Your task to perform on an android device: Open the Play Movies app and select the watchlist tab. Image 0: 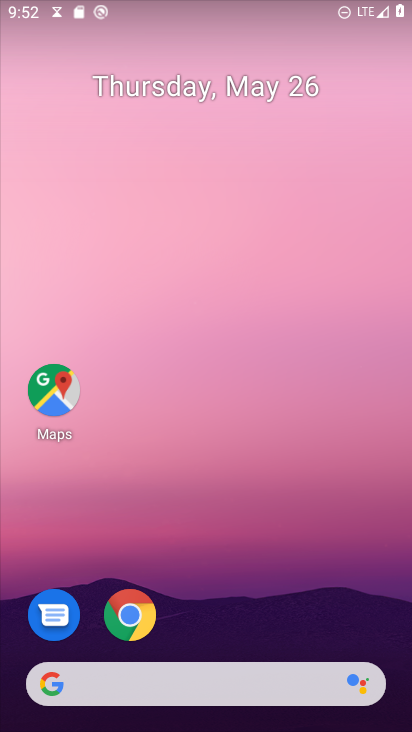
Step 0: drag from (243, 622) to (294, 210)
Your task to perform on an android device: Open the Play Movies app and select the watchlist tab. Image 1: 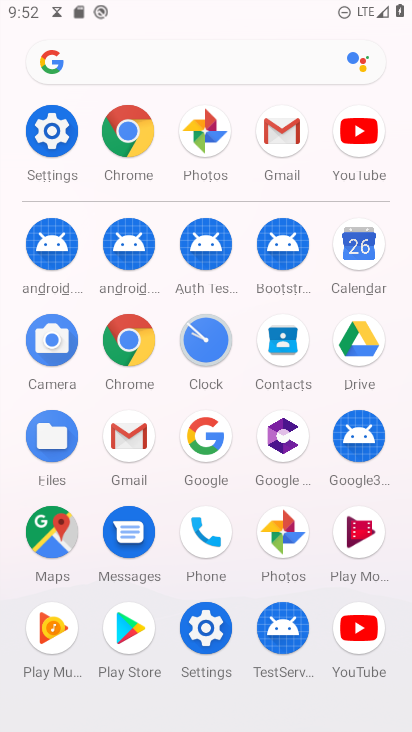
Step 1: click (352, 520)
Your task to perform on an android device: Open the Play Movies app and select the watchlist tab. Image 2: 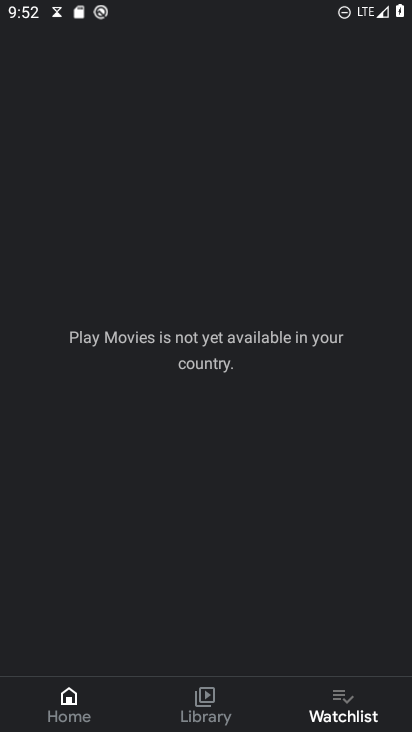
Step 2: click (339, 697)
Your task to perform on an android device: Open the Play Movies app and select the watchlist tab. Image 3: 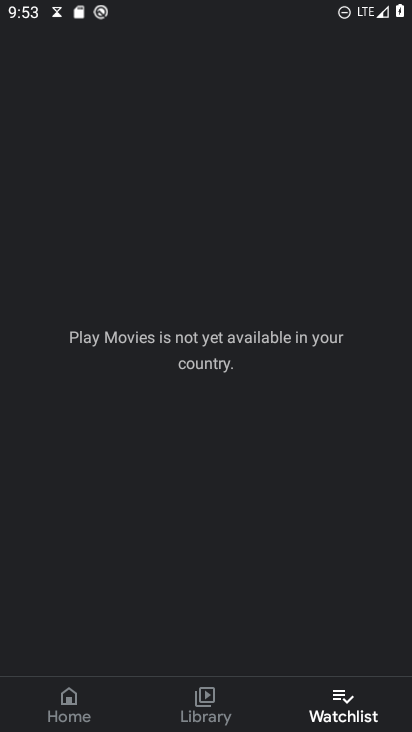
Step 3: task complete